Your task to perform on an android device: Check the weather Image 0: 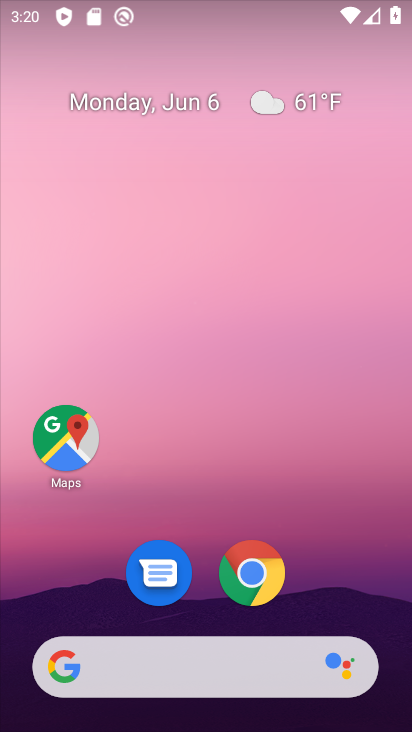
Step 0: drag from (244, 623) to (249, 295)
Your task to perform on an android device: Check the weather Image 1: 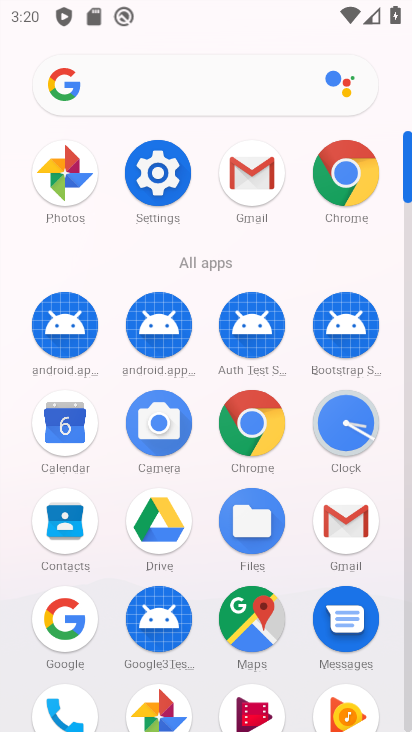
Step 1: click (64, 618)
Your task to perform on an android device: Check the weather Image 2: 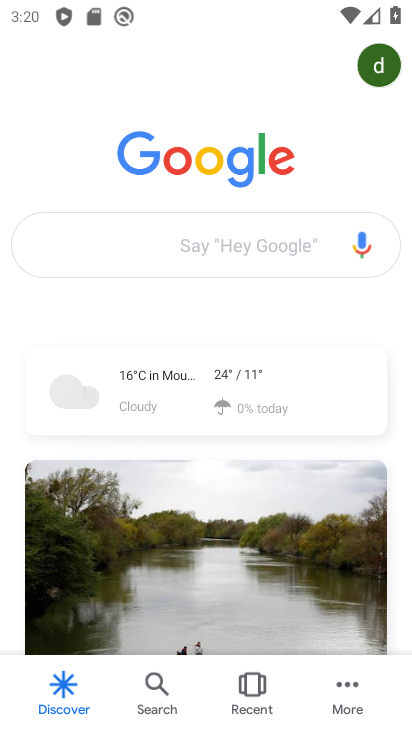
Step 2: click (140, 384)
Your task to perform on an android device: Check the weather Image 3: 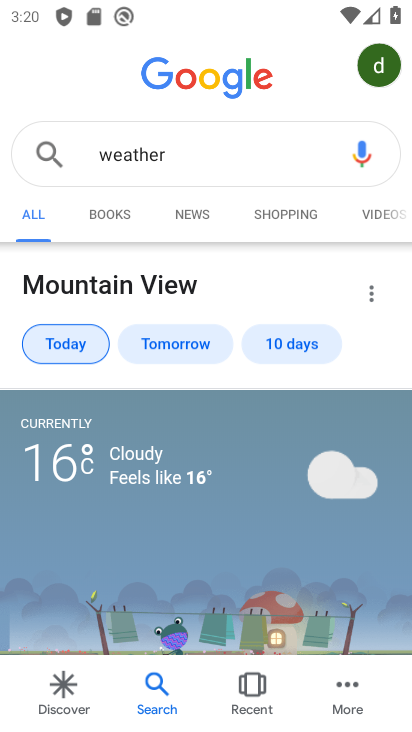
Step 3: task complete